Your task to perform on an android device: Add macbook pro to the cart on amazon, then select checkout. Image 0: 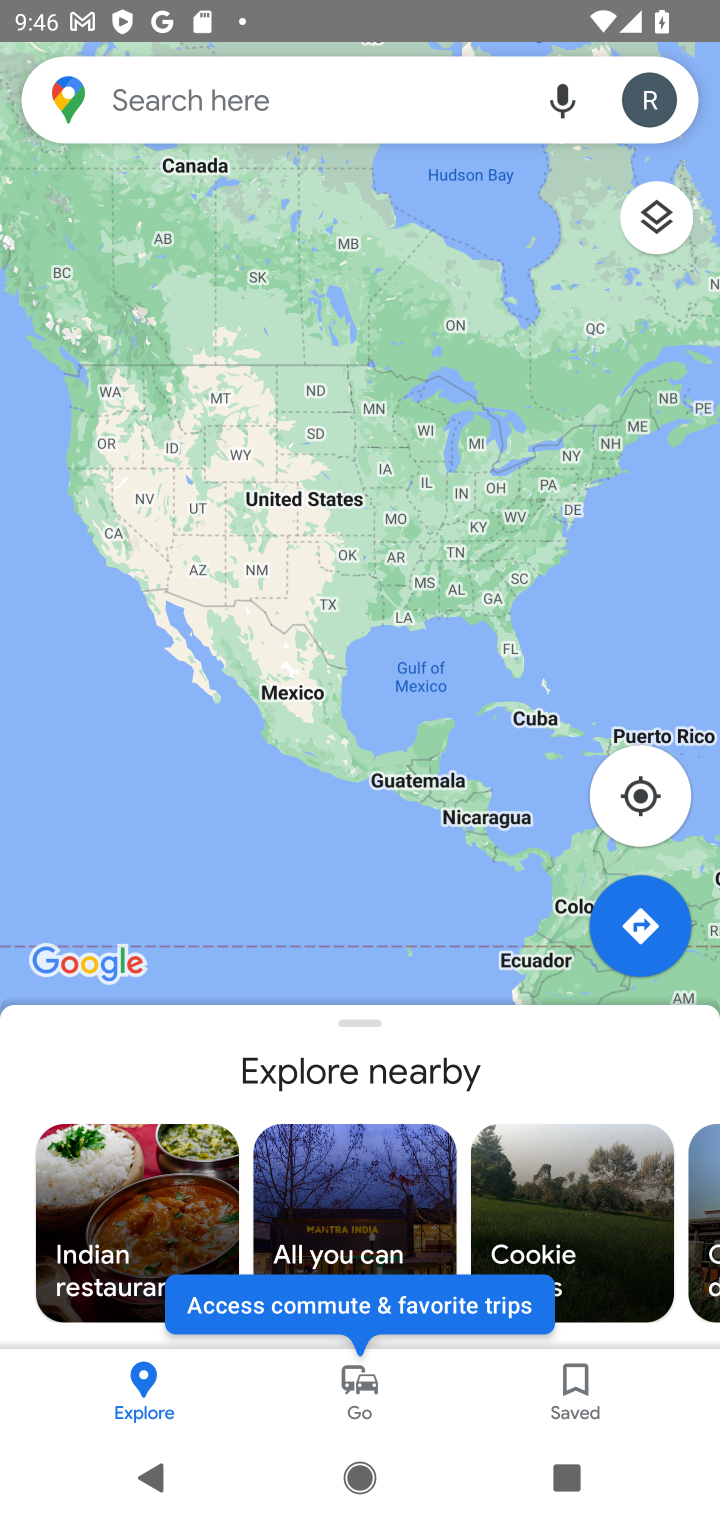
Step 0: press home button
Your task to perform on an android device: Add macbook pro to the cart on amazon, then select checkout. Image 1: 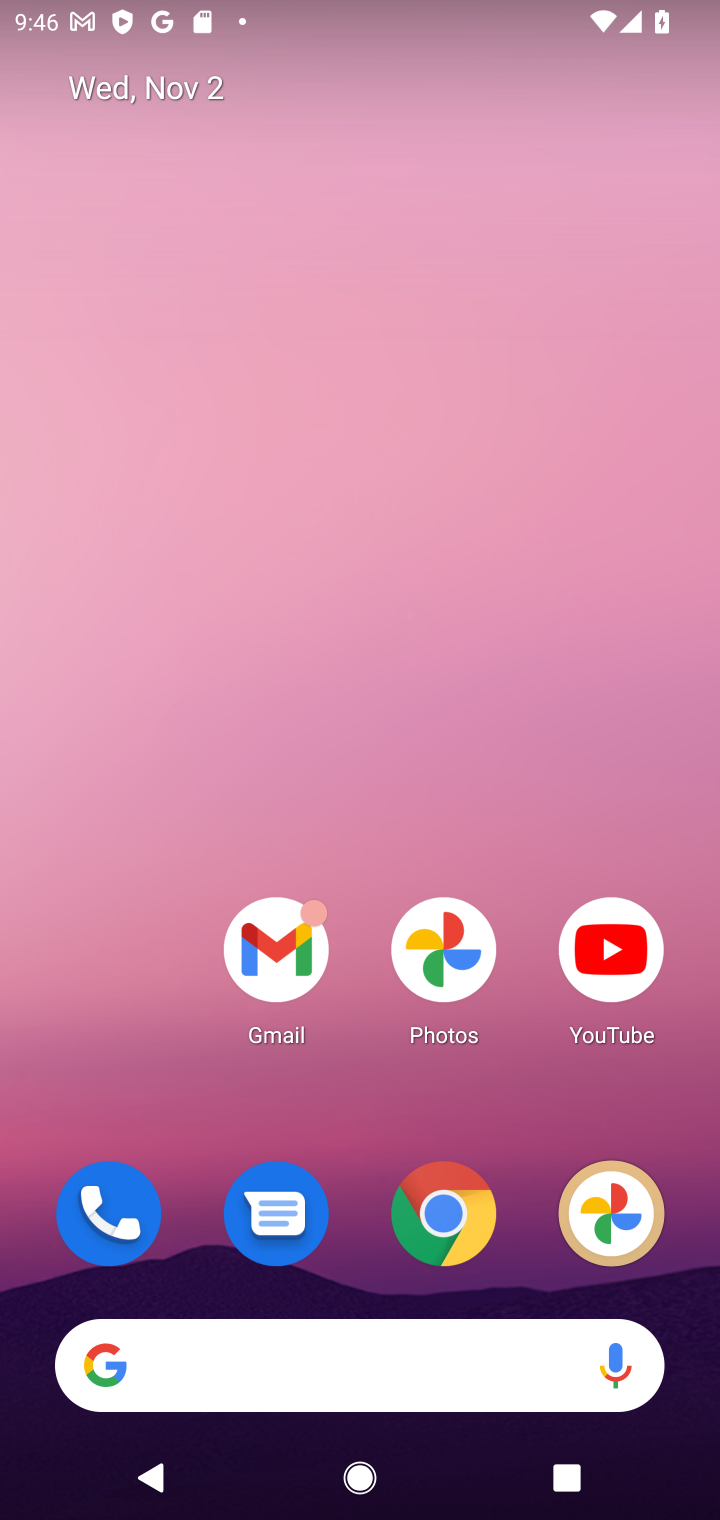
Step 1: click (438, 1212)
Your task to perform on an android device: Add macbook pro to the cart on amazon, then select checkout. Image 2: 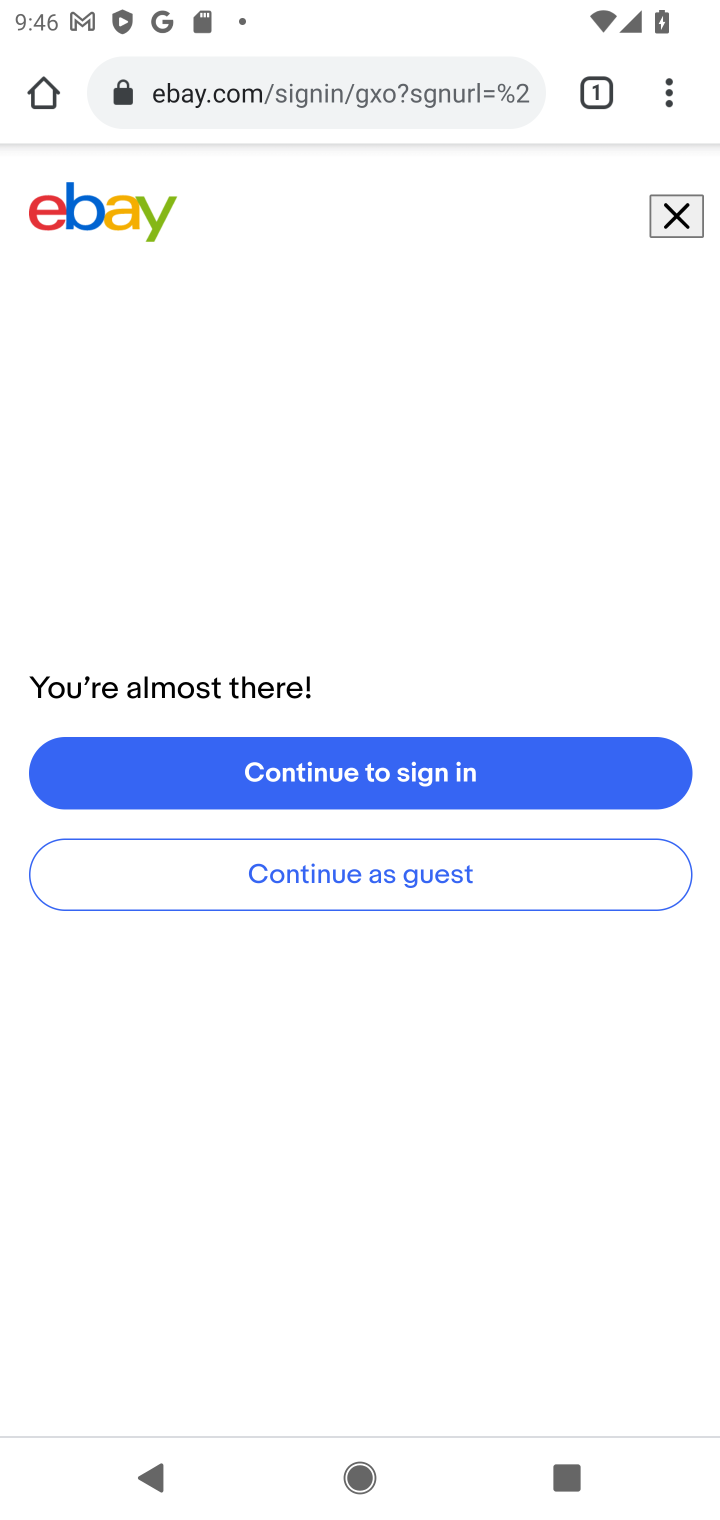
Step 2: click (286, 99)
Your task to perform on an android device: Add macbook pro to the cart on amazon, then select checkout. Image 3: 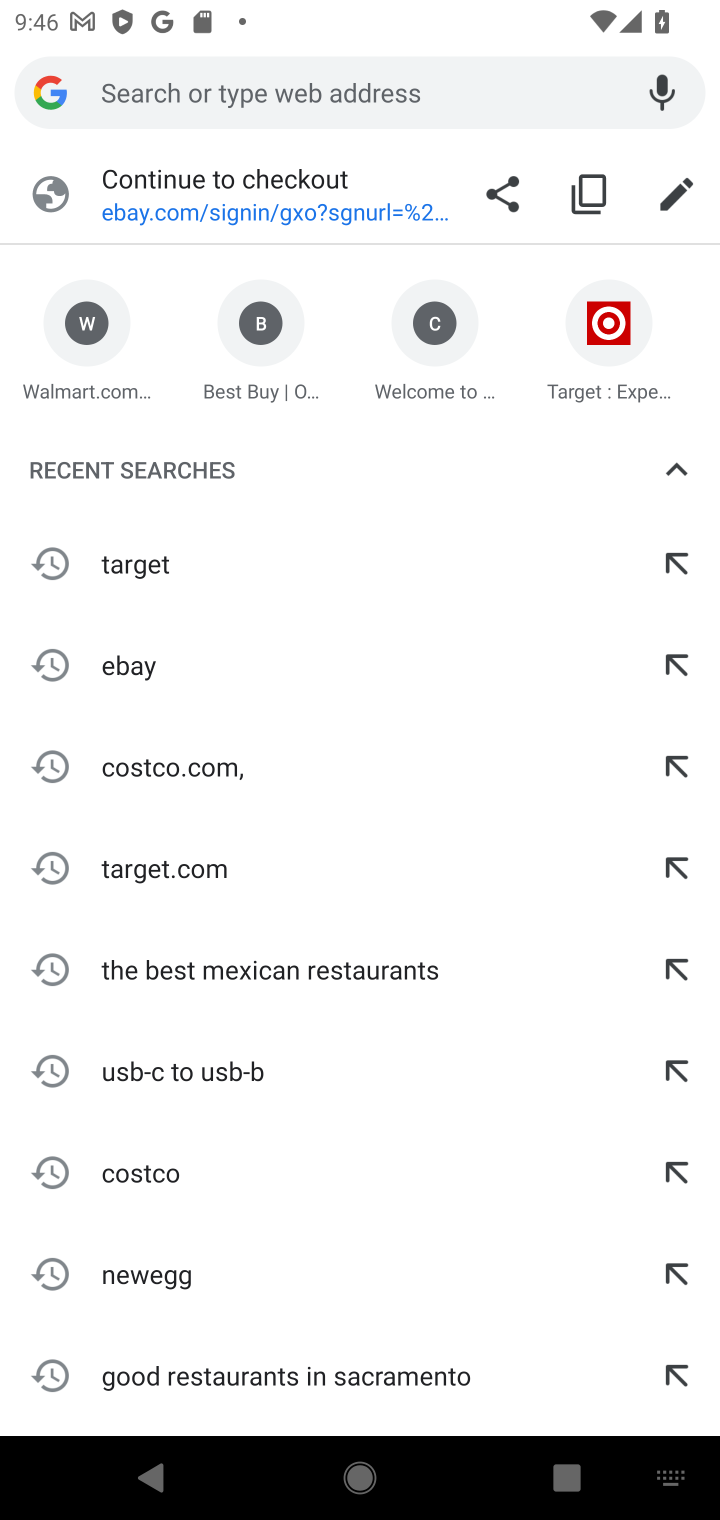
Step 3: type "amazon"
Your task to perform on an android device: Add macbook pro to the cart on amazon, then select checkout. Image 4: 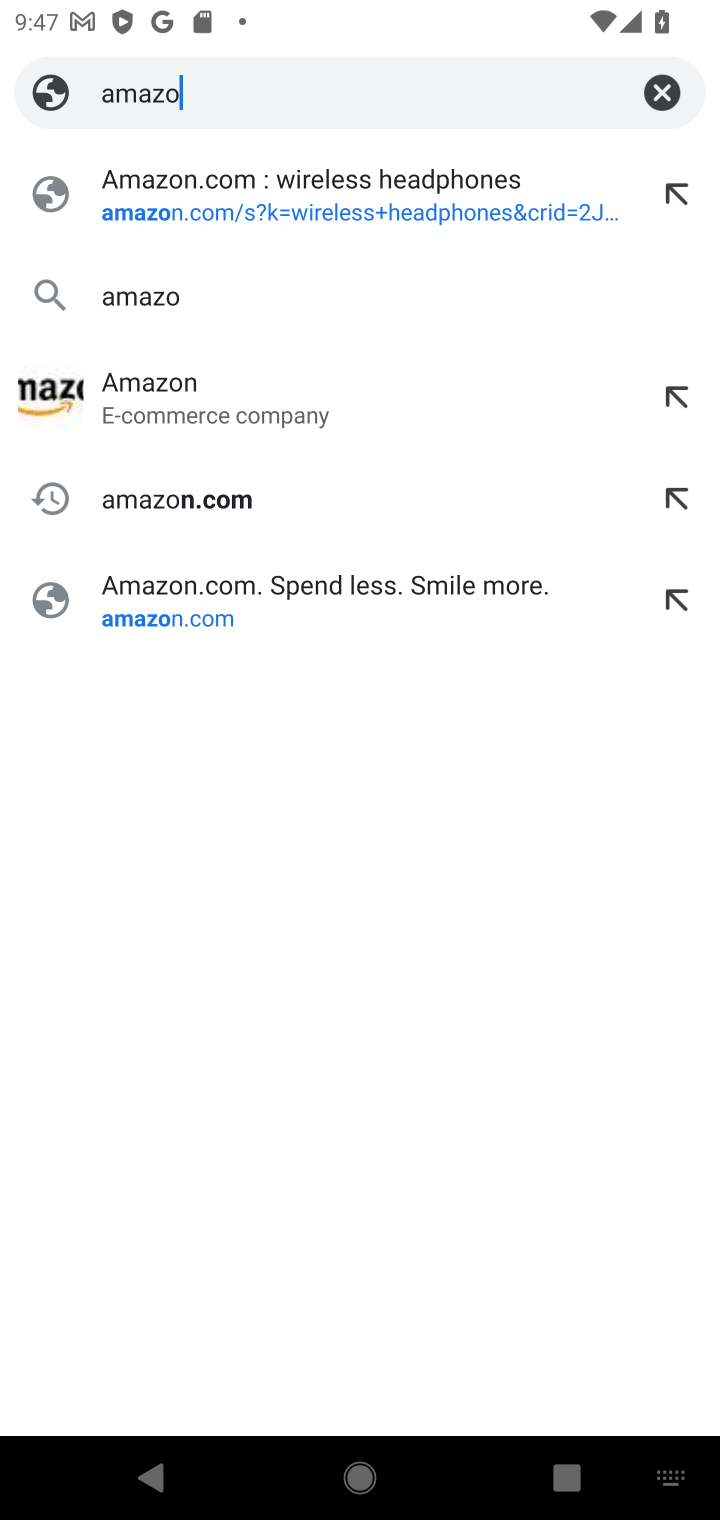
Step 4: type ""
Your task to perform on an android device: Add macbook pro to the cart on amazon, then select checkout. Image 5: 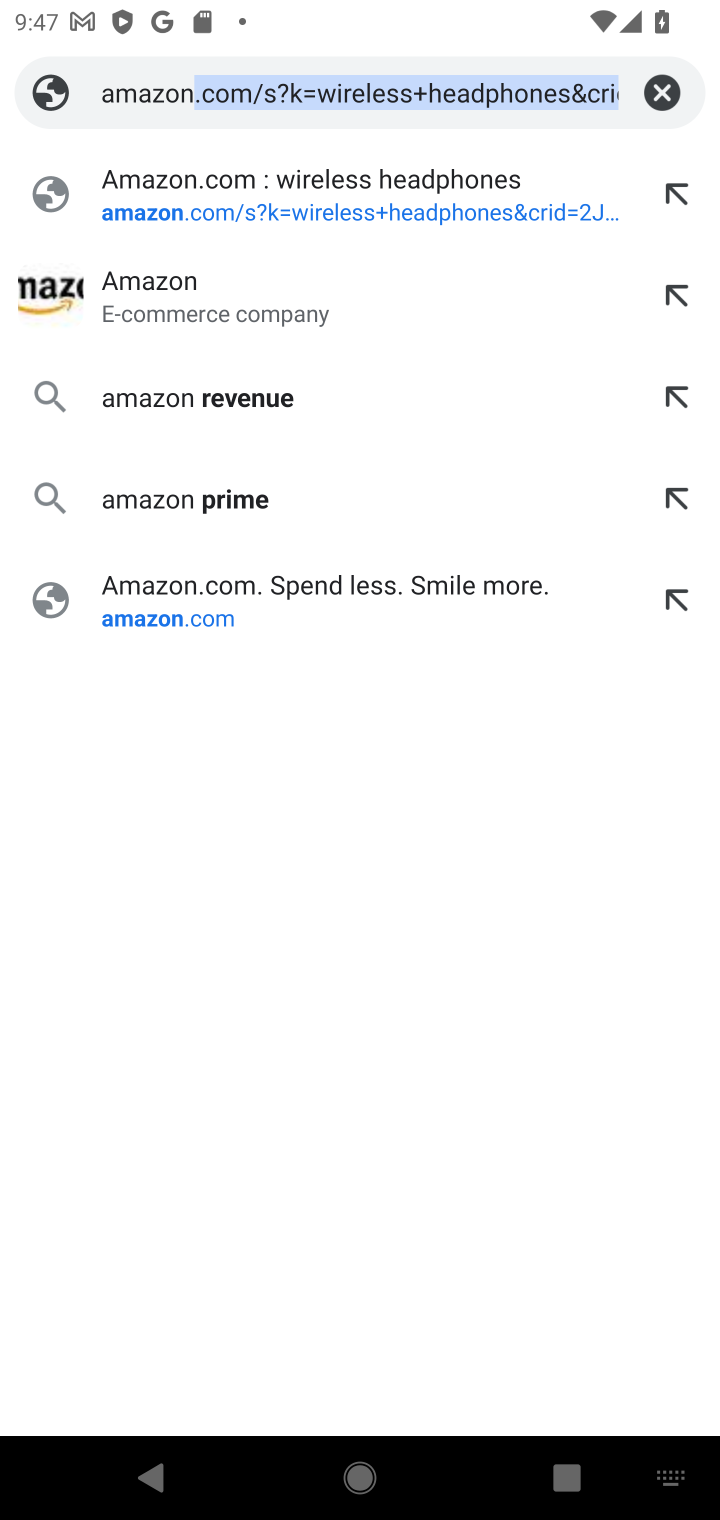
Step 5: click (146, 203)
Your task to perform on an android device: Add macbook pro to the cart on amazon, then select checkout. Image 6: 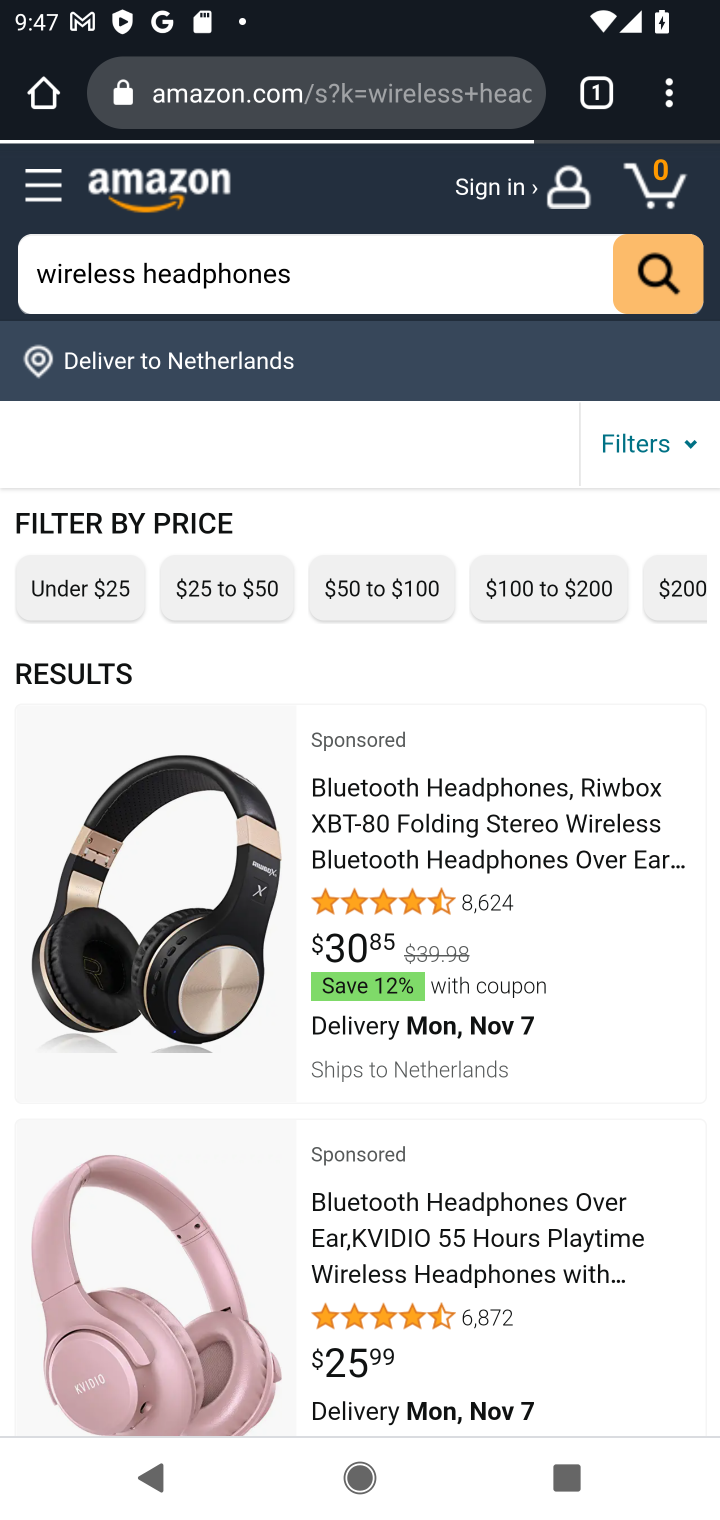
Step 6: click (408, 282)
Your task to perform on an android device: Add macbook pro to the cart on amazon, then select checkout. Image 7: 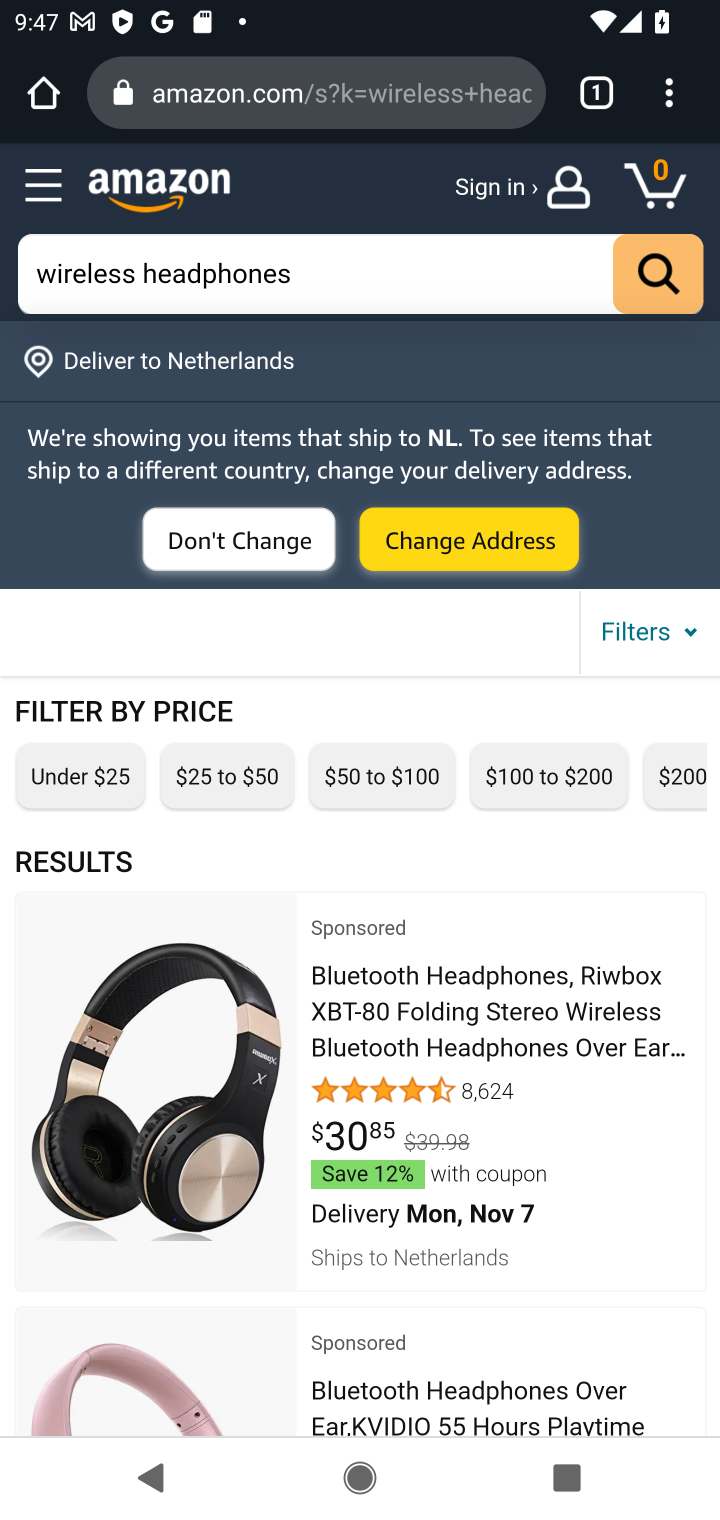
Step 7: click (268, 283)
Your task to perform on an android device: Add macbook pro to the cart on amazon, then select checkout. Image 8: 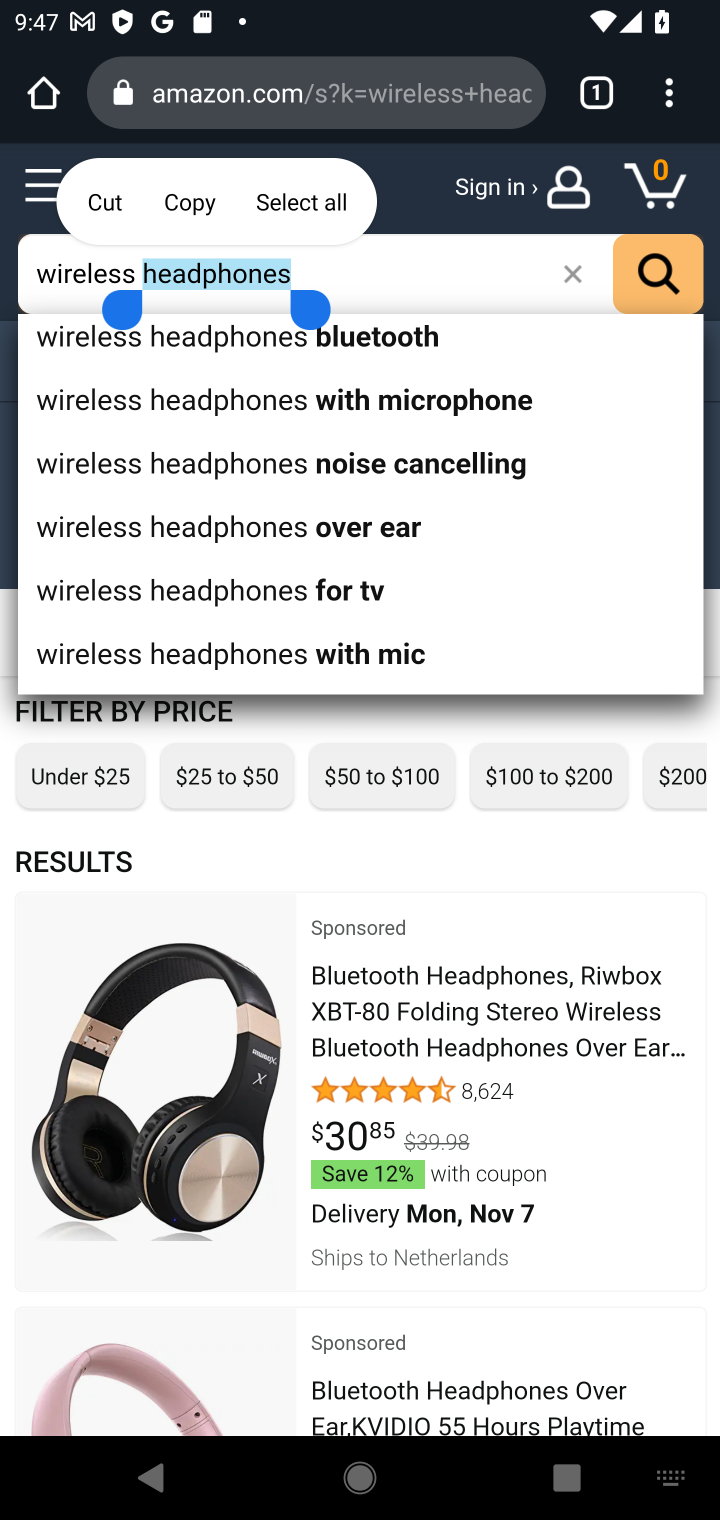
Step 8: click (577, 277)
Your task to perform on an android device: Add macbook pro to the cart on amazon, then select checkout. Image 9: 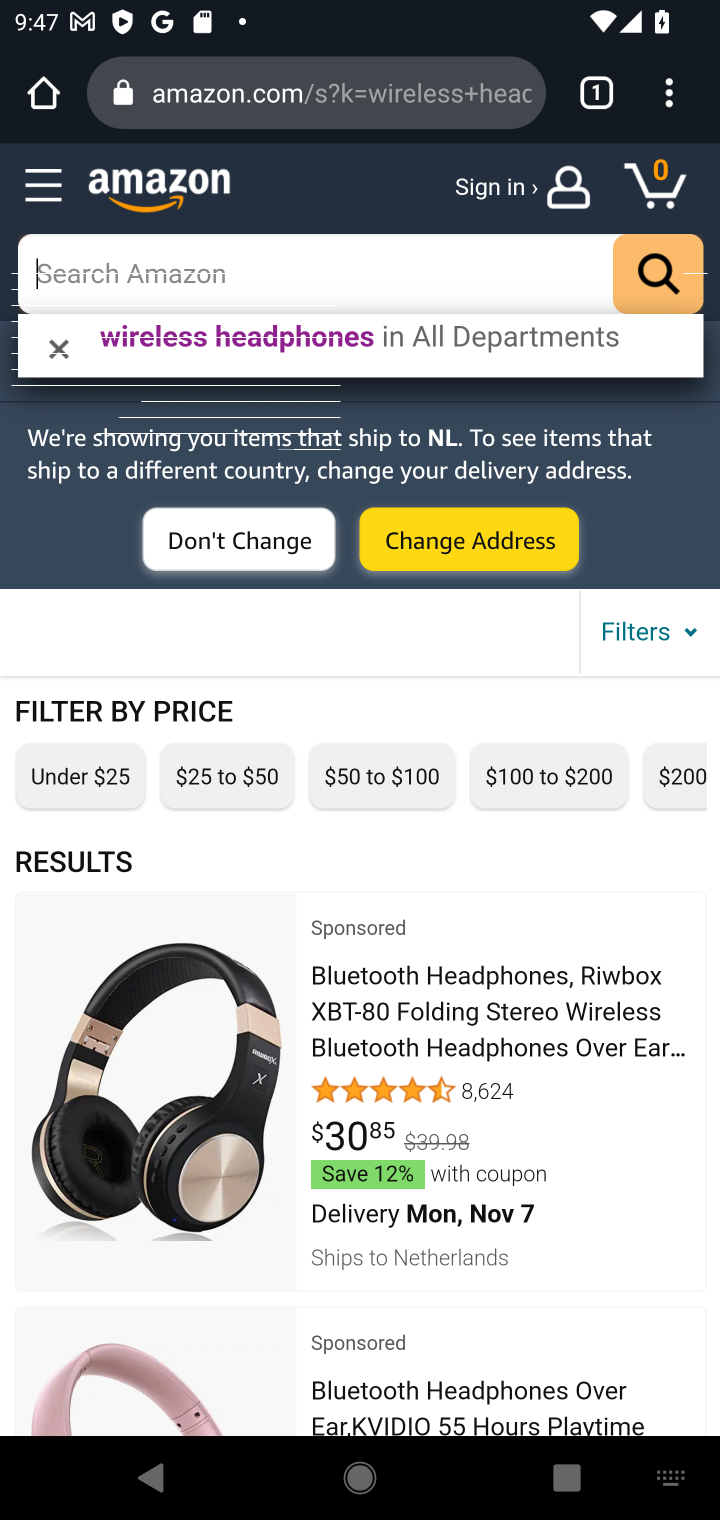
Step 9: type "macbook pro"
Your task to perform on an android device: Add macbook pro to the cart on amazon, then select checkout. Image 10: 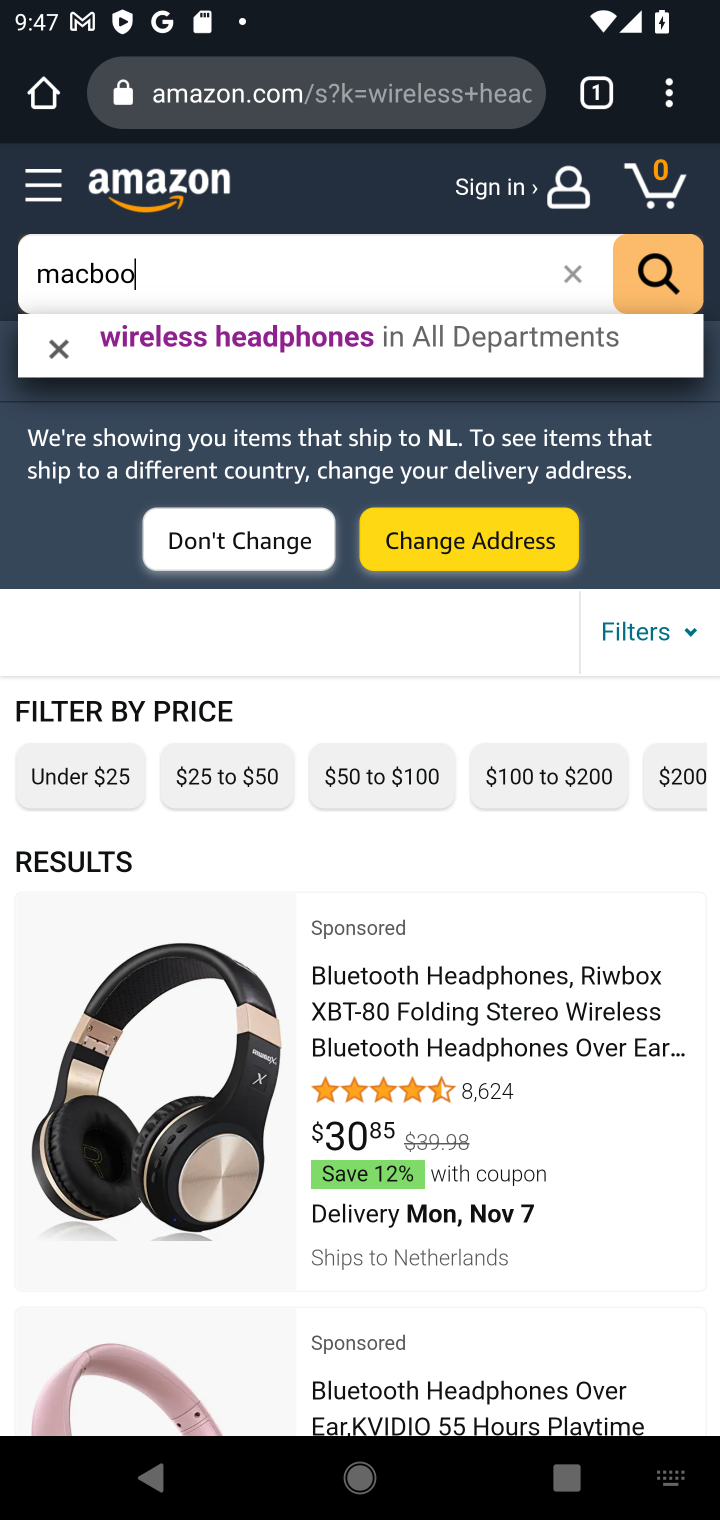
Step 10: type ""
Your task to perform on an android device: Add macbook pro to the cart on amazon, then select checkout. Image 11: 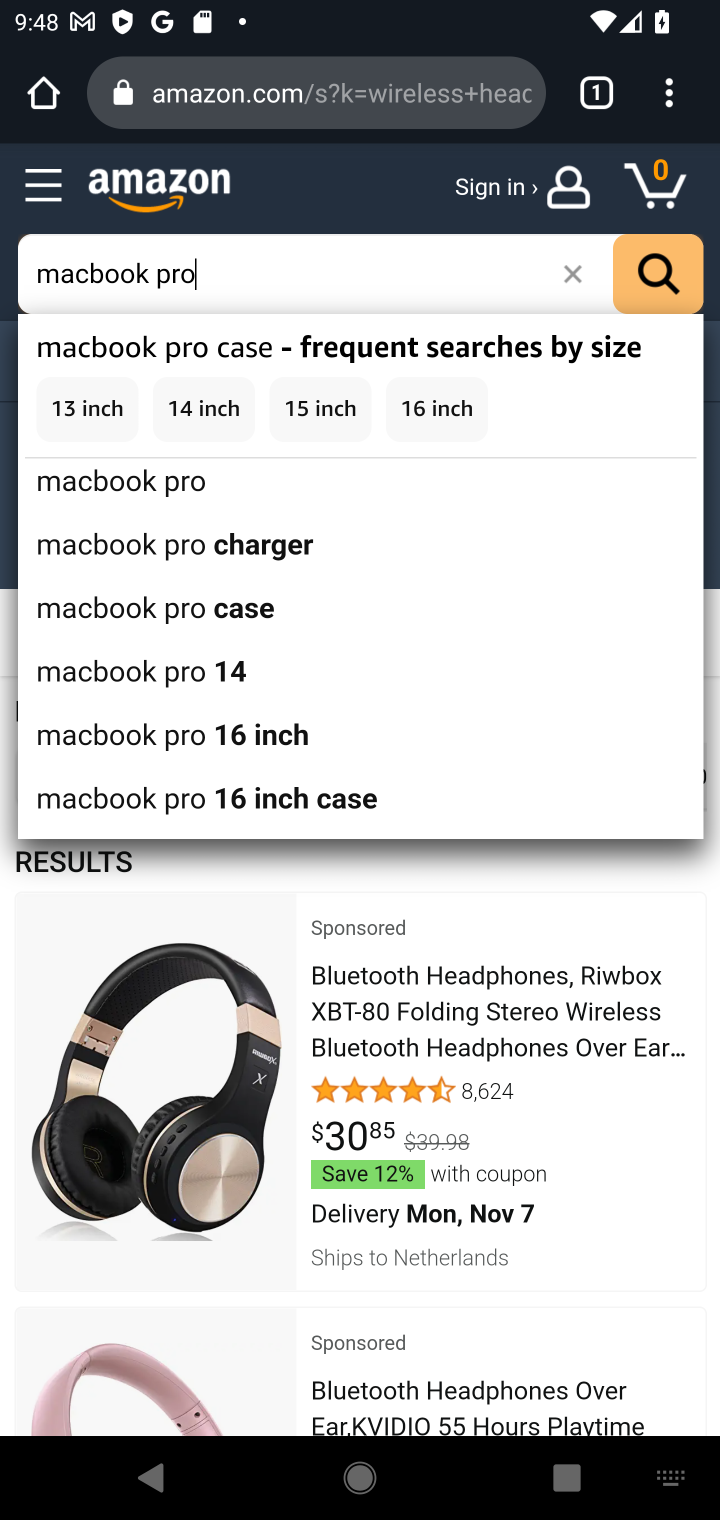
Step 11: click (212, 496)
Your task to perform on an android device: Add macbook pro to the cart on amazon, then select checkout. Image 12: 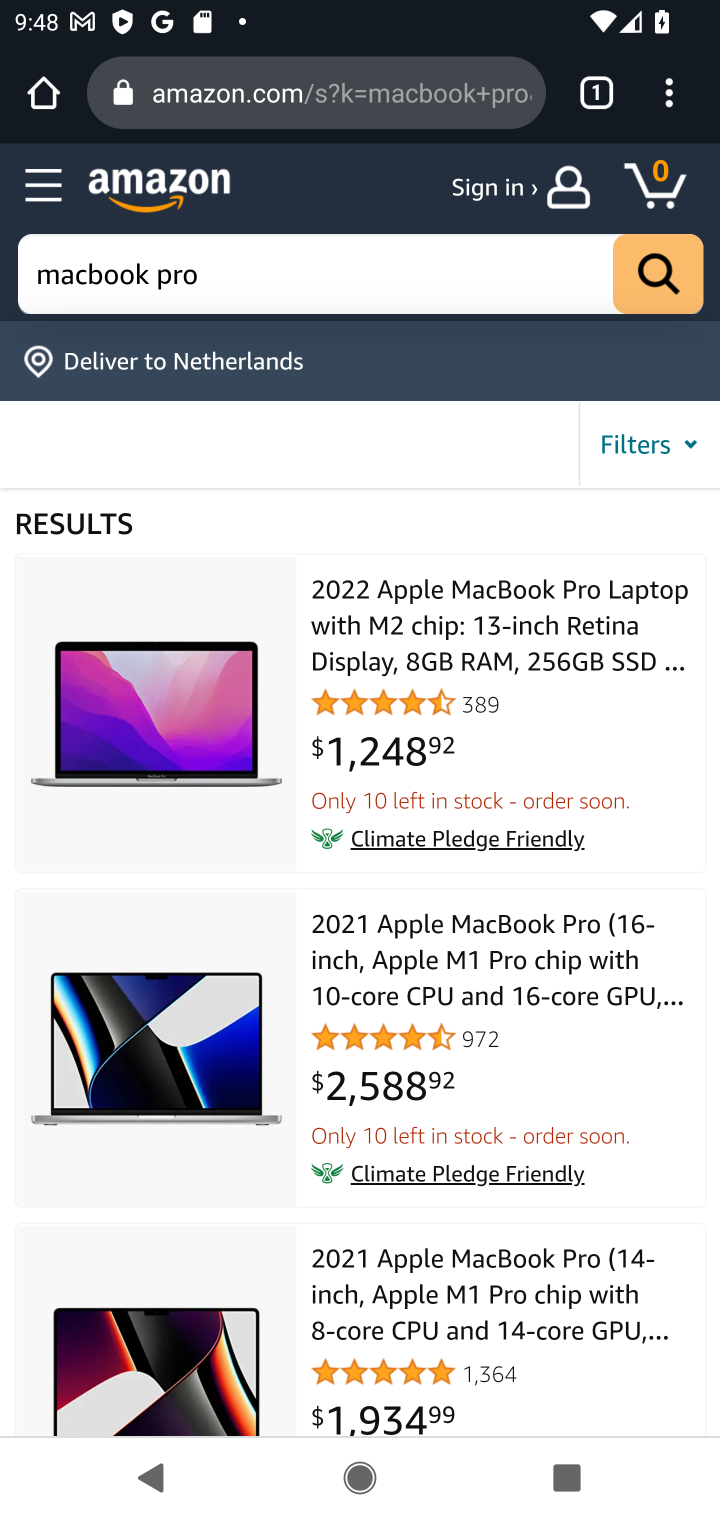
Step 12: click (438, 644)
Your task to perform on an android device: Add macbook pro to the cart on amazon, then select checkout. Image 13: 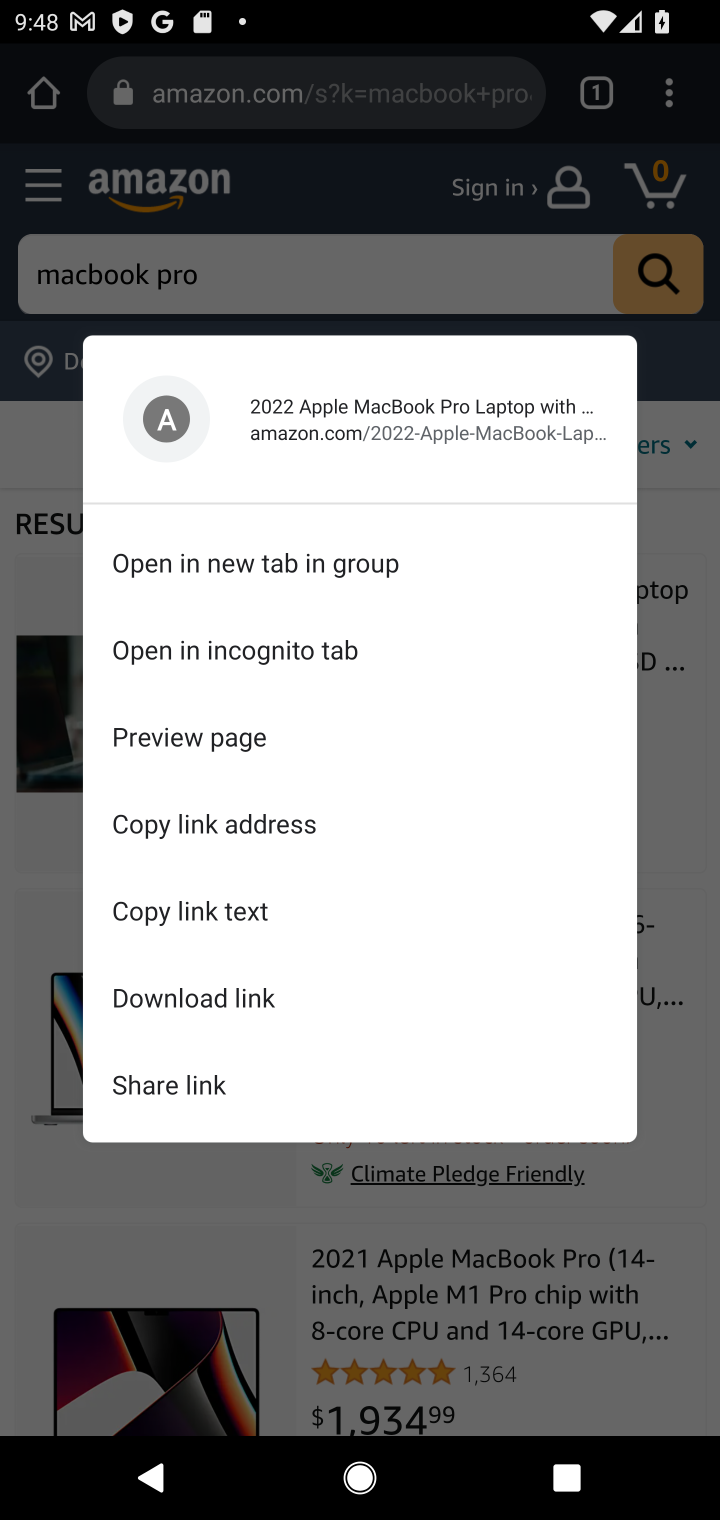
Step 13: click (661, 748)
Your task to perform on an android device: Add macbook pro to the cart on amazon, then select checkout. Image 14: 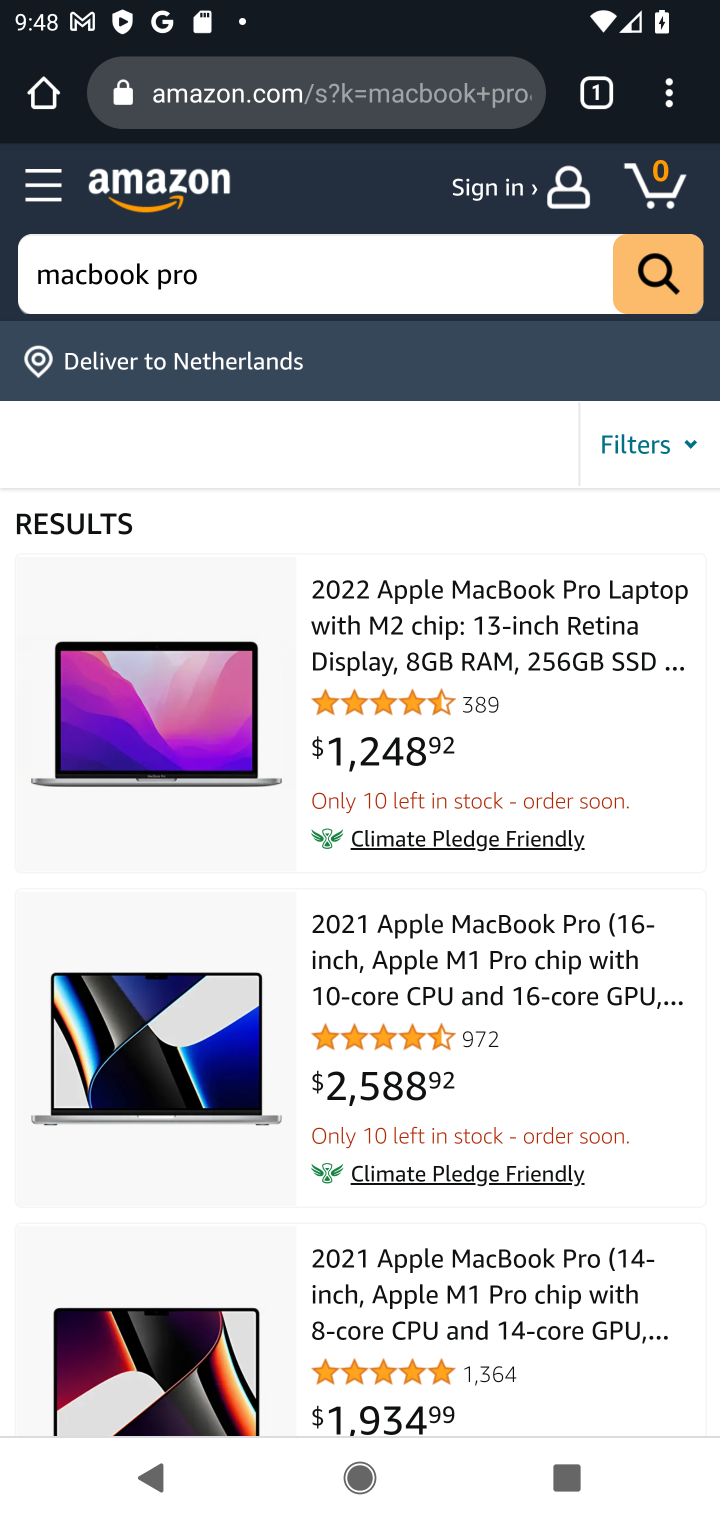
Step 14: click (571, 1018)
Your task to perform on an android device: Add macbook pro to the cart on amazon, then select checkout. Image 15: 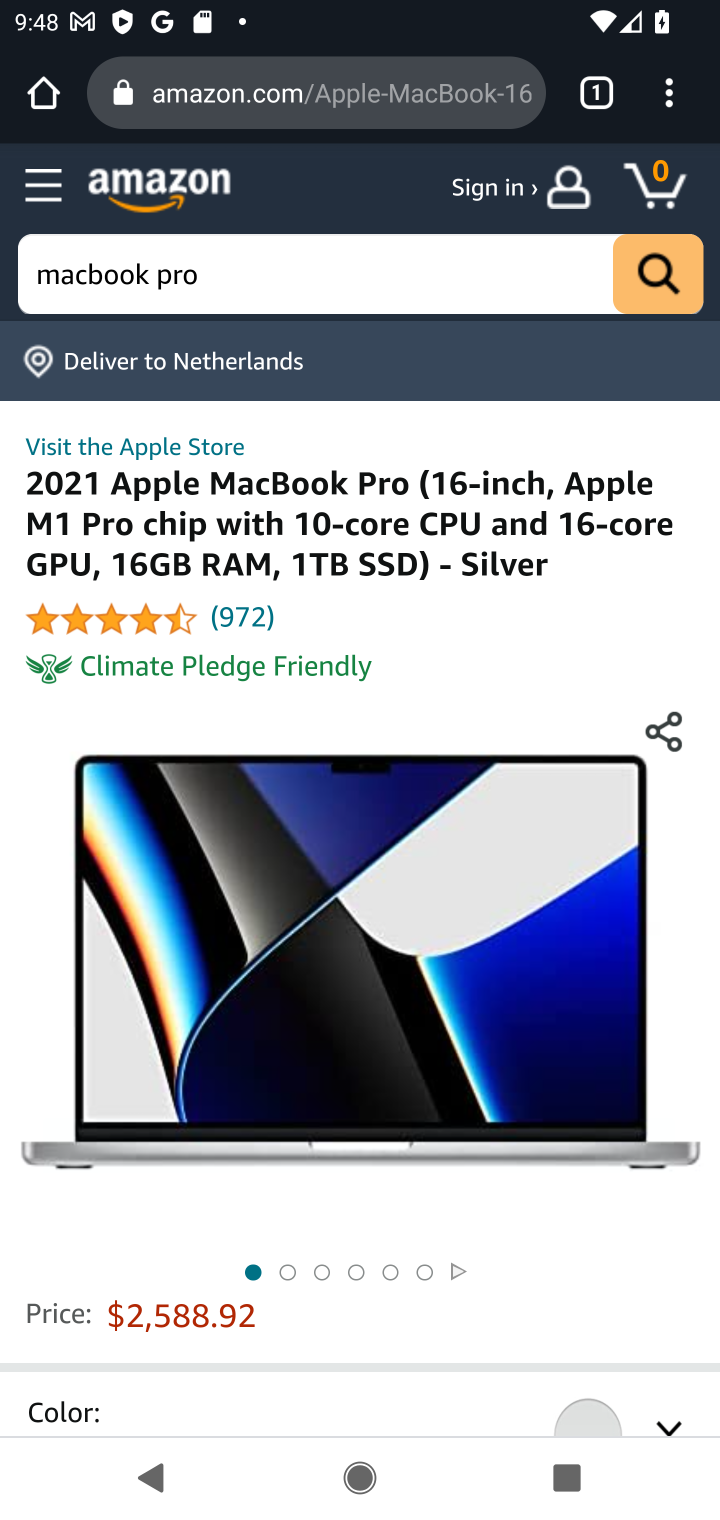
Step 15: drag from (578, 918) to (544, 692)
Your task to perform on an android device: Add macbook pro to the cart on amazon, then select checkout. Image 16: 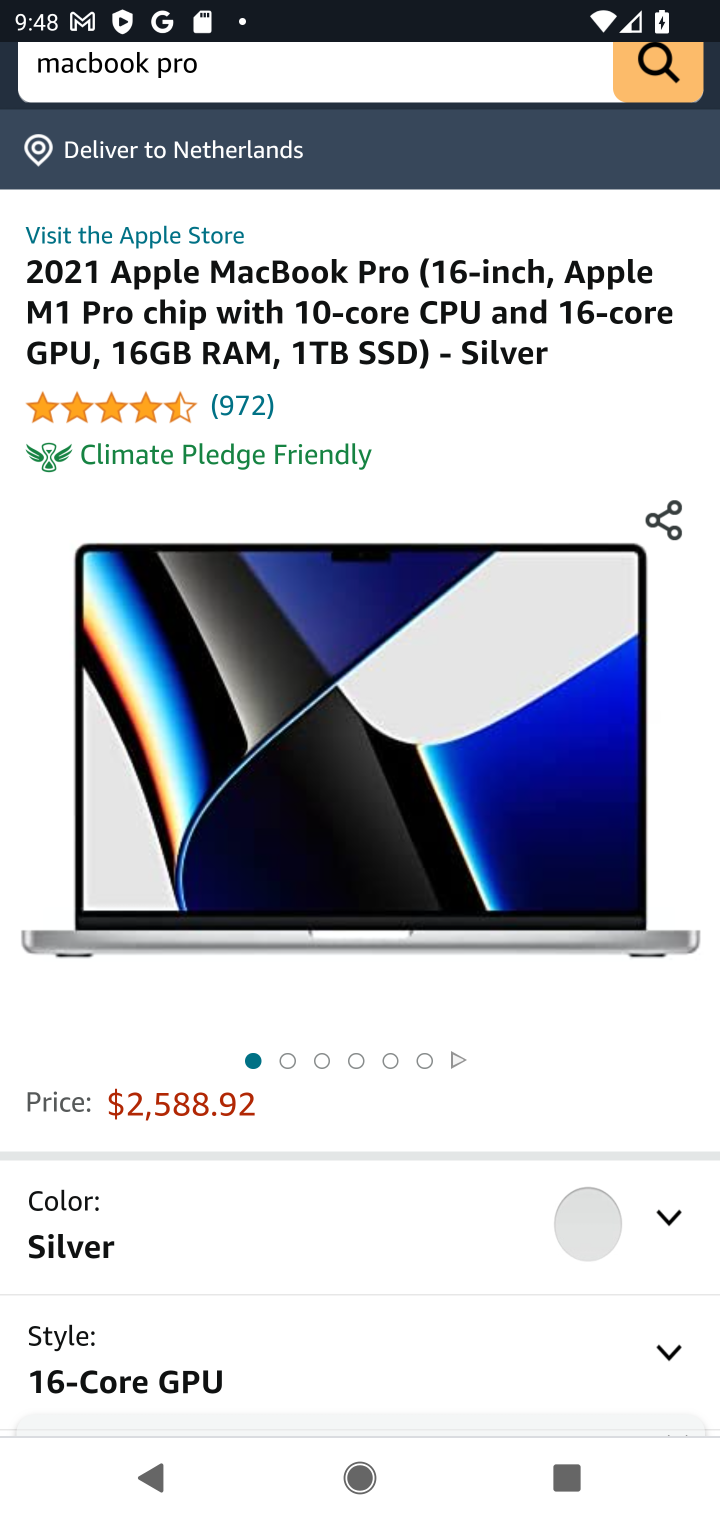
Step 16: drag from (383, 983) to (391, 489)
Your task to perform on an android device: Add macbook pro to the cart on amazon, then select checkout. Image 17: 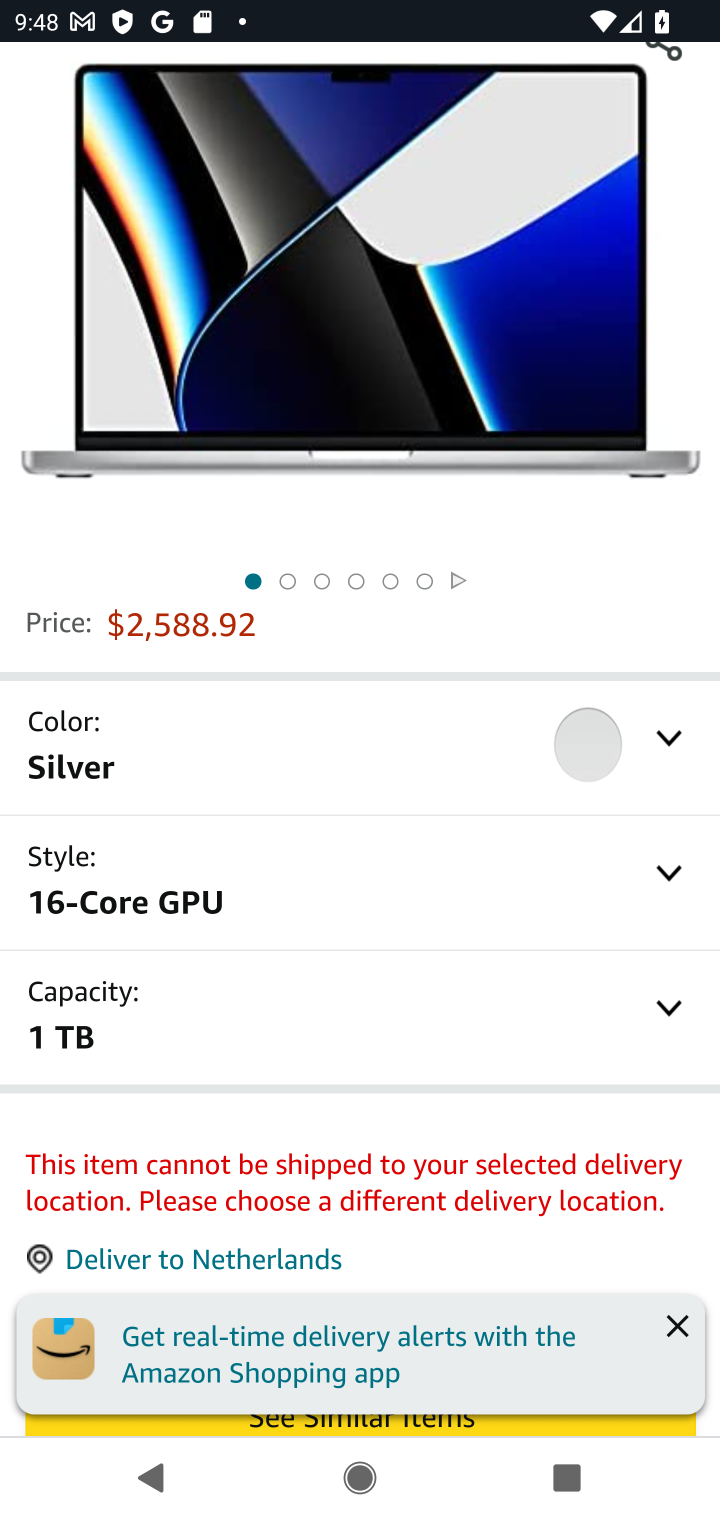
Step 17: click (681, 1338)
Your task to perform on an android device: Add macbook pro to the cart on amazon, then select checkout. Image 18: 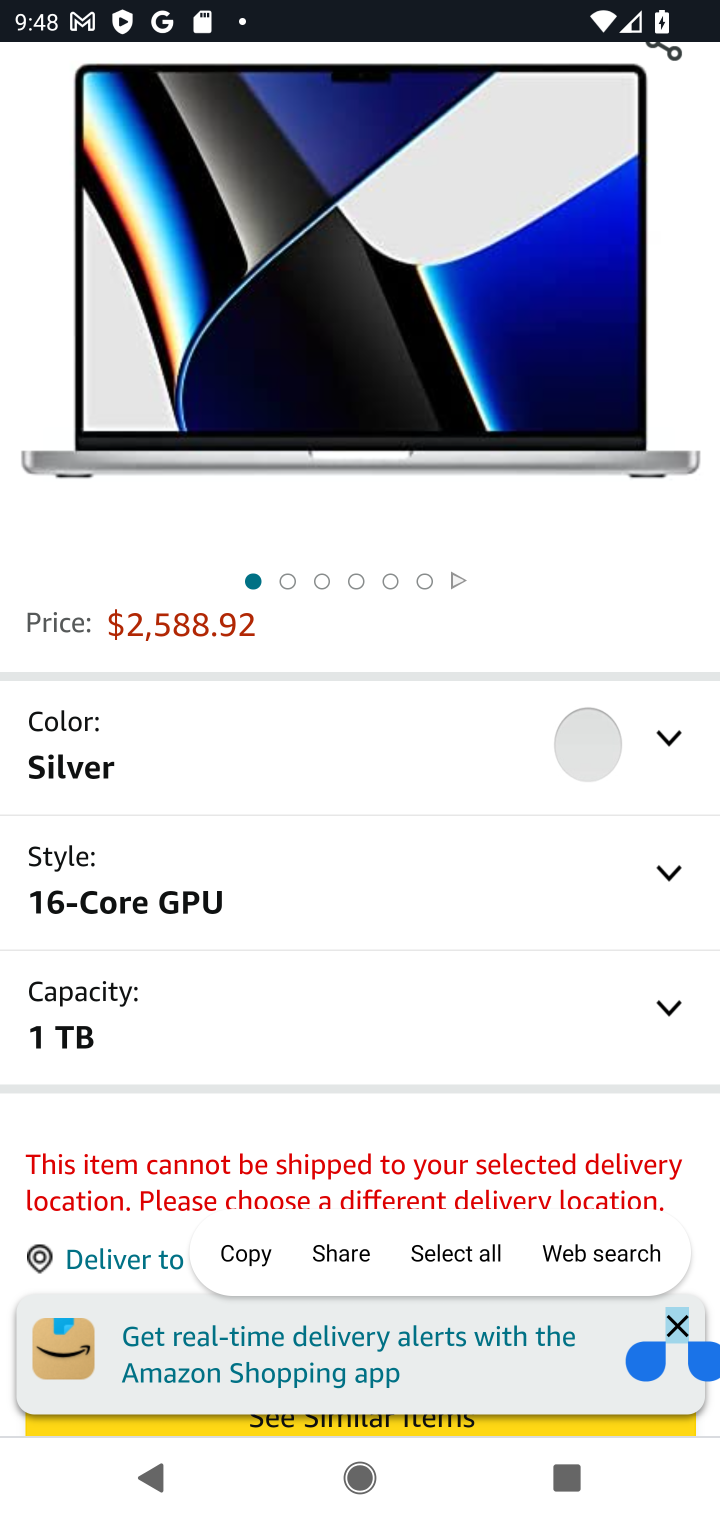
Step 18: press back button
Your task to perform on an android device: Add macbook pro to the cart on amazon, then select checkout. Image 19: 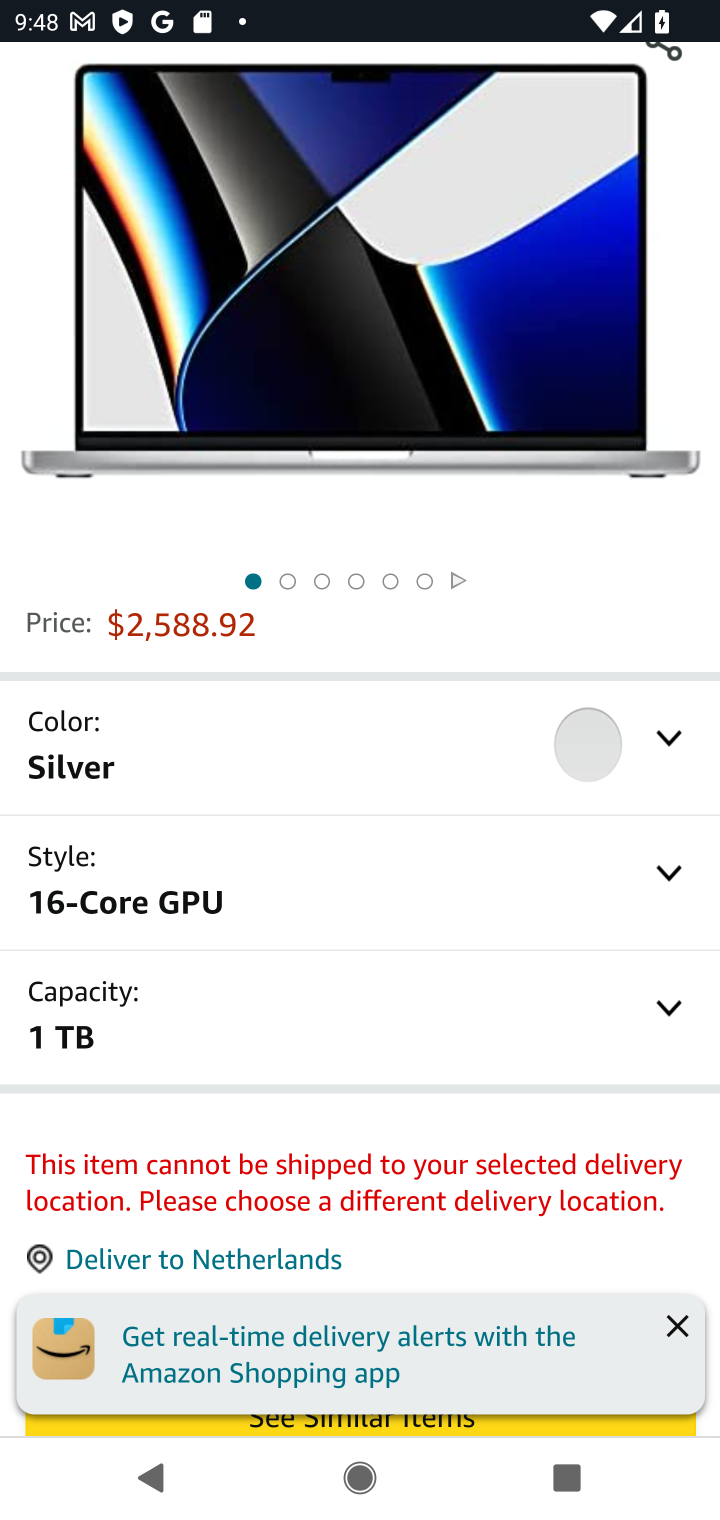
Step 19: press back button
Your task to perform on an android device: Add macbook pro to the cart on amazon, then select checkout. Image 20: 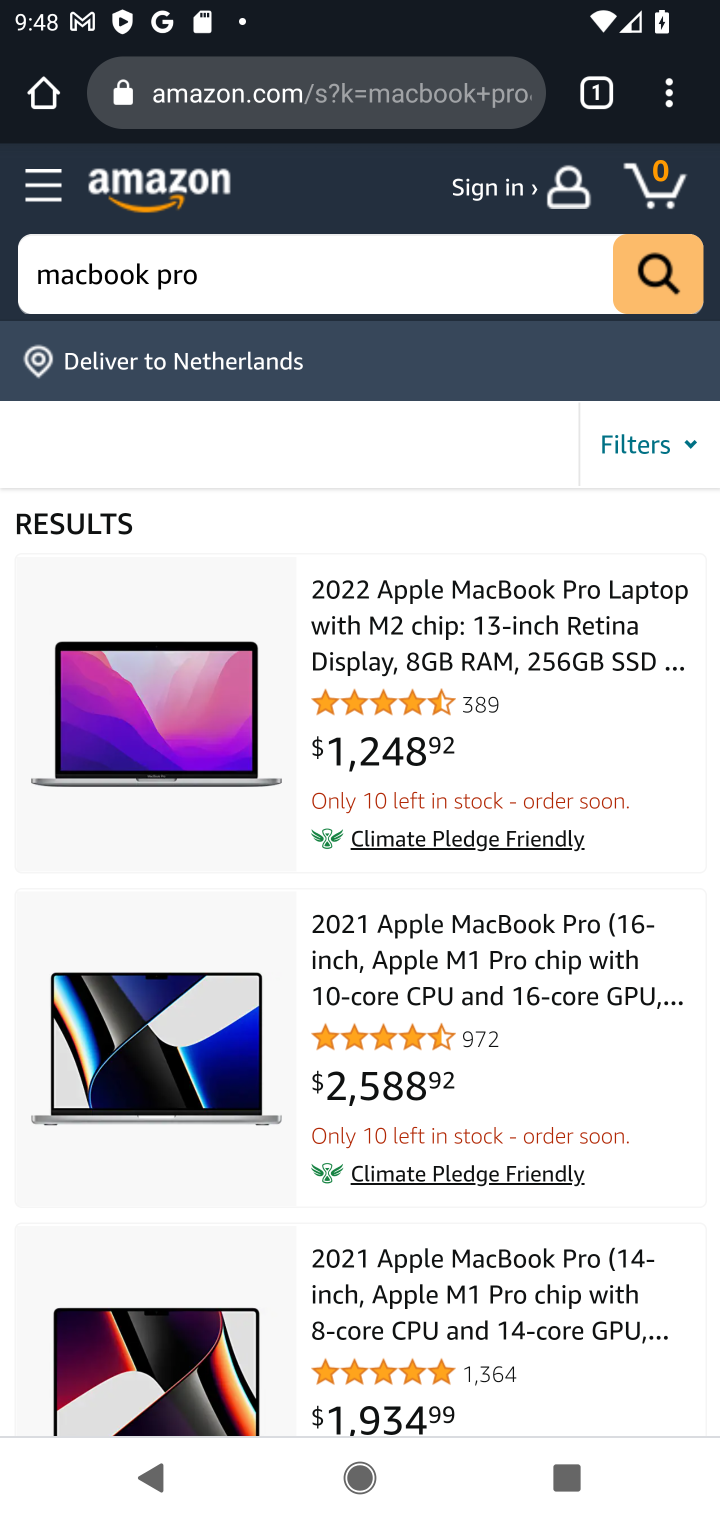
Step 20: click (506, 642)
Your task to perform on an android device: Add macbook pro to the cart on amazon, then select checkout. Image 21: 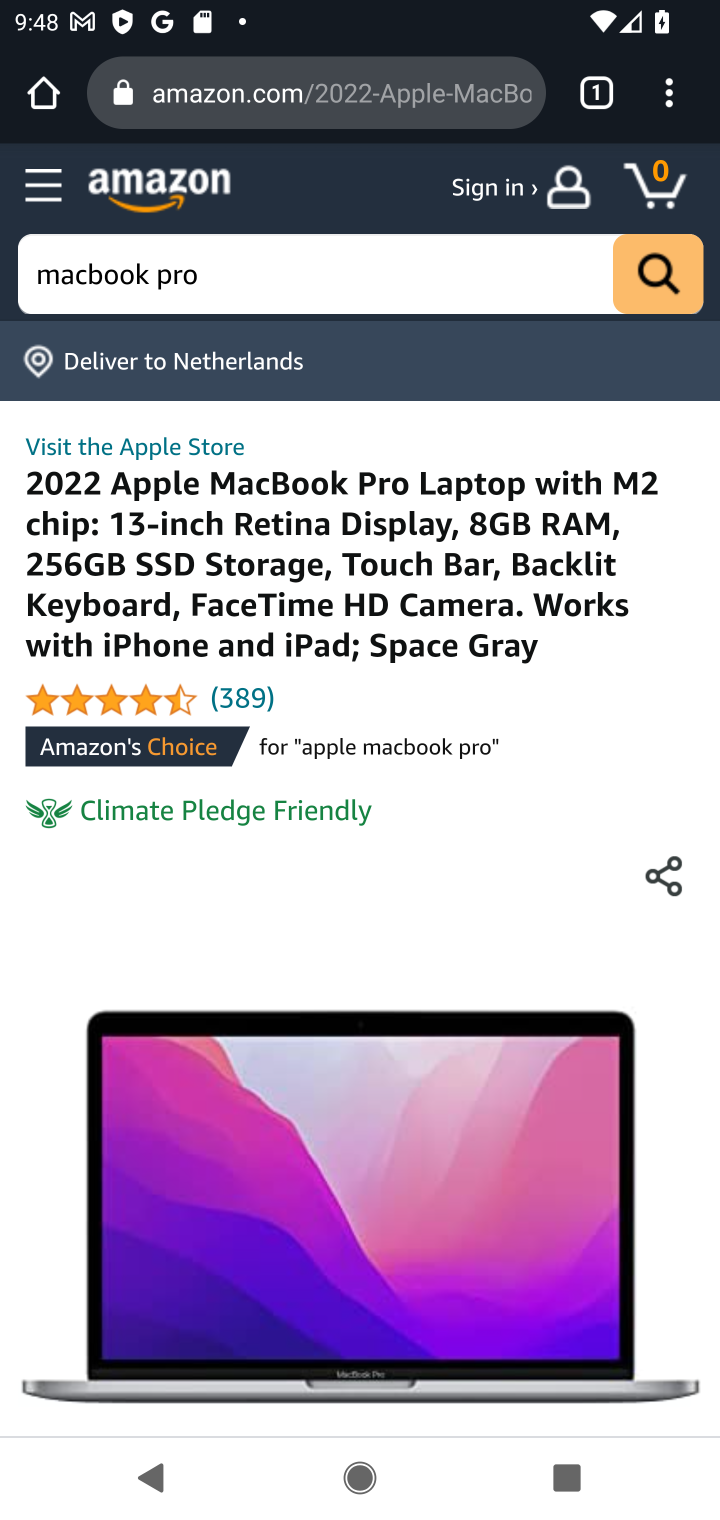
Step 21: drag from (453, 872) to (453, 483)
Your task to perform on an android device: Add macbook pro to the cart on amazon, then select checkout. Image 22: 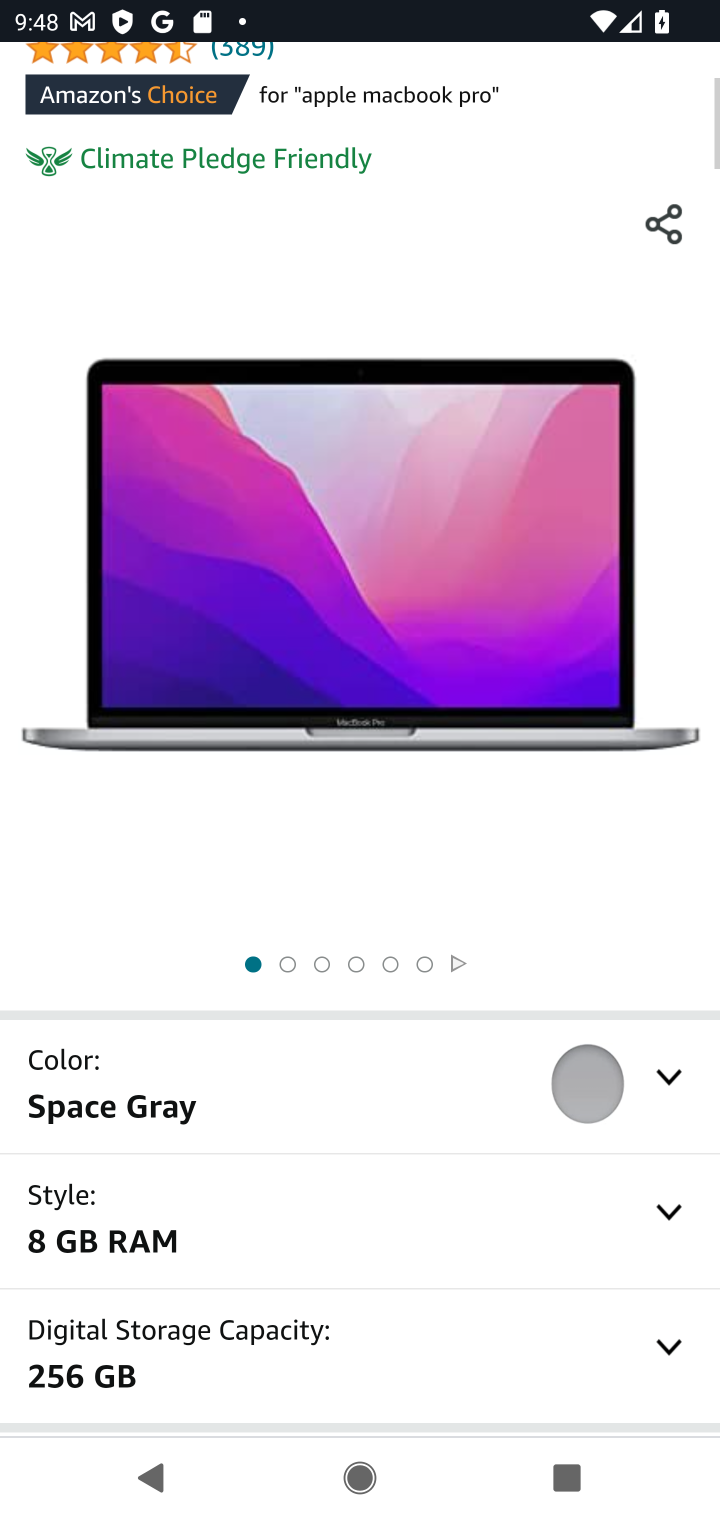
Step 22: drag from (426, 782) to (391, 555)
Your task to perform on an android device: Add macbook pro to the cart on amazon, then select checkout. Image 23: 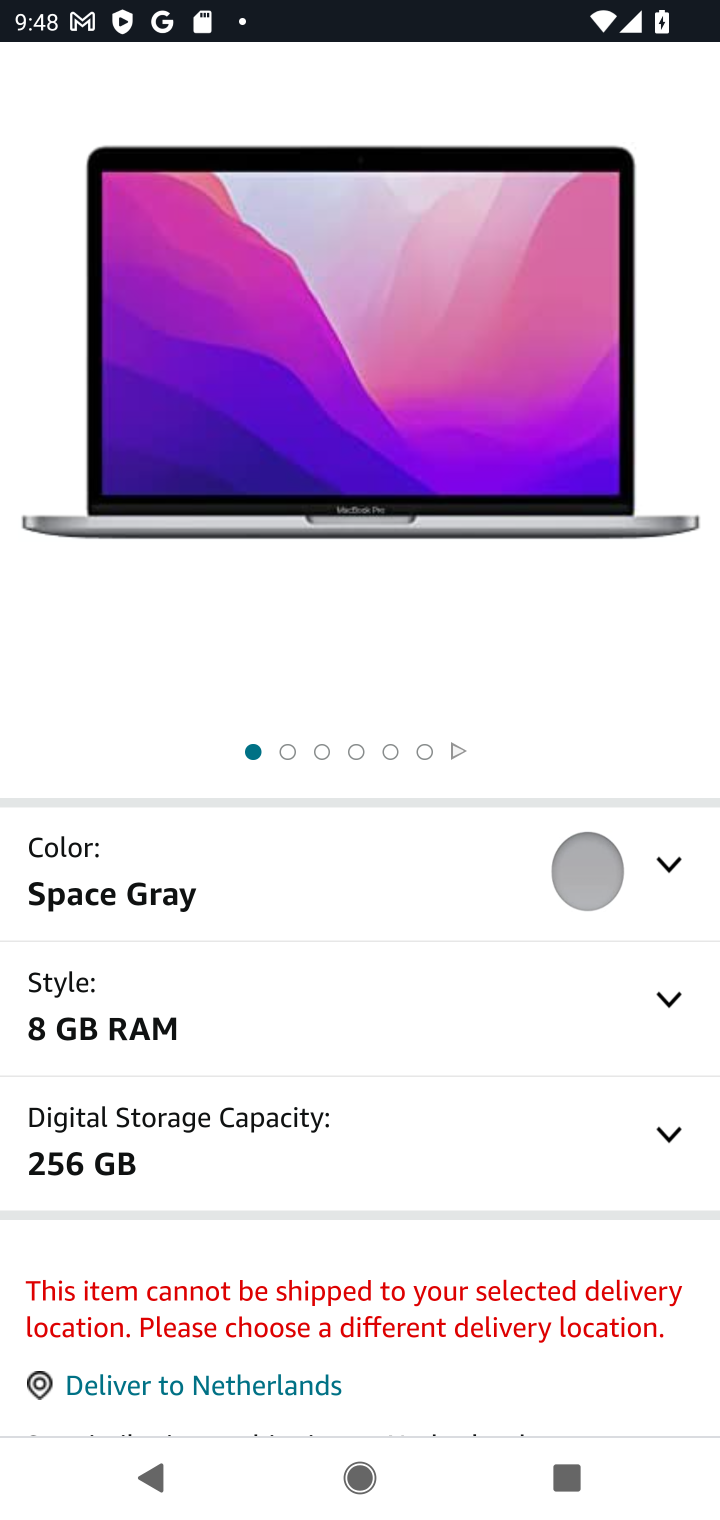
Step 23: click (507, 710)
Your task to perform on an android device: Add macbook pro to the cart on amazon, then select checkout. Image 24: 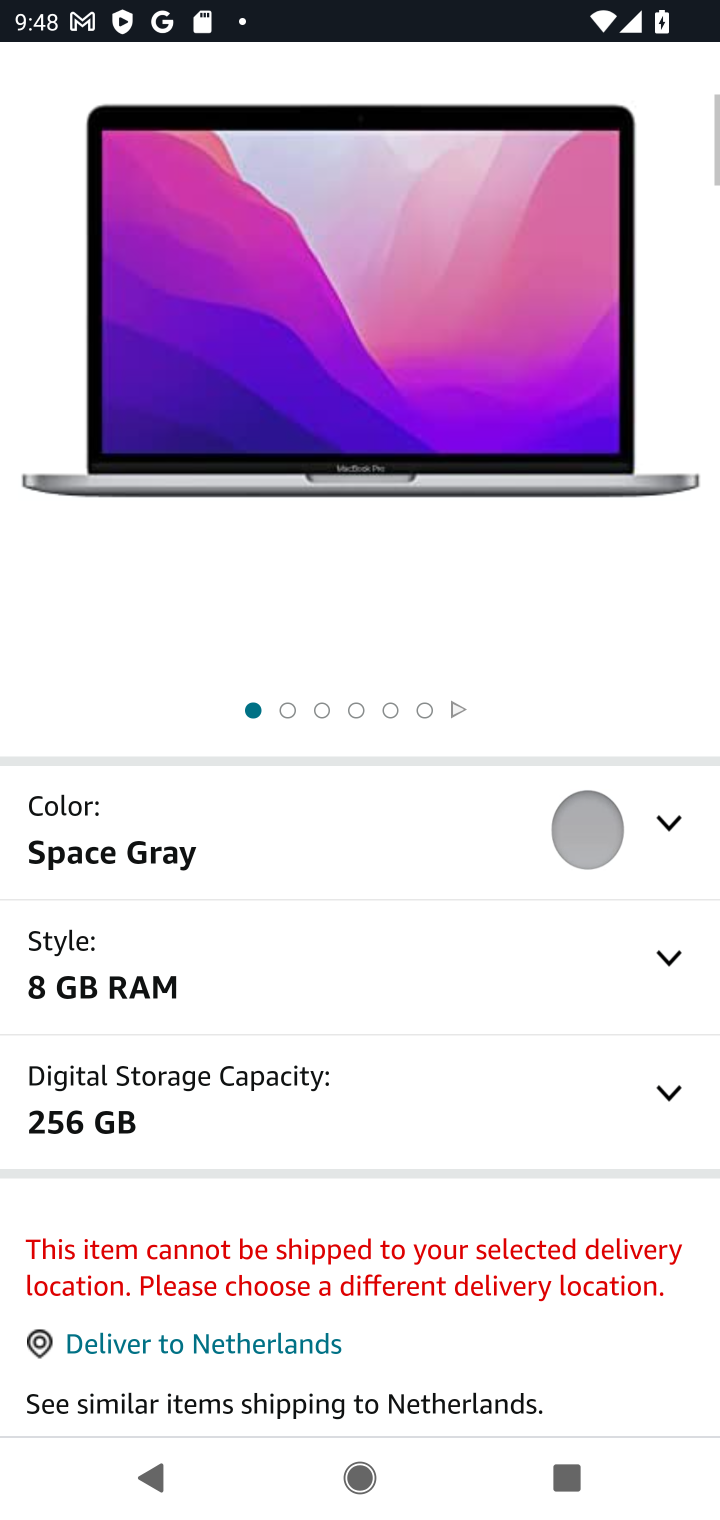
Step 24: press back button
Your task to perform on an android device: Add macbook pro to the cart on amazon, then select checkout. Image 25: 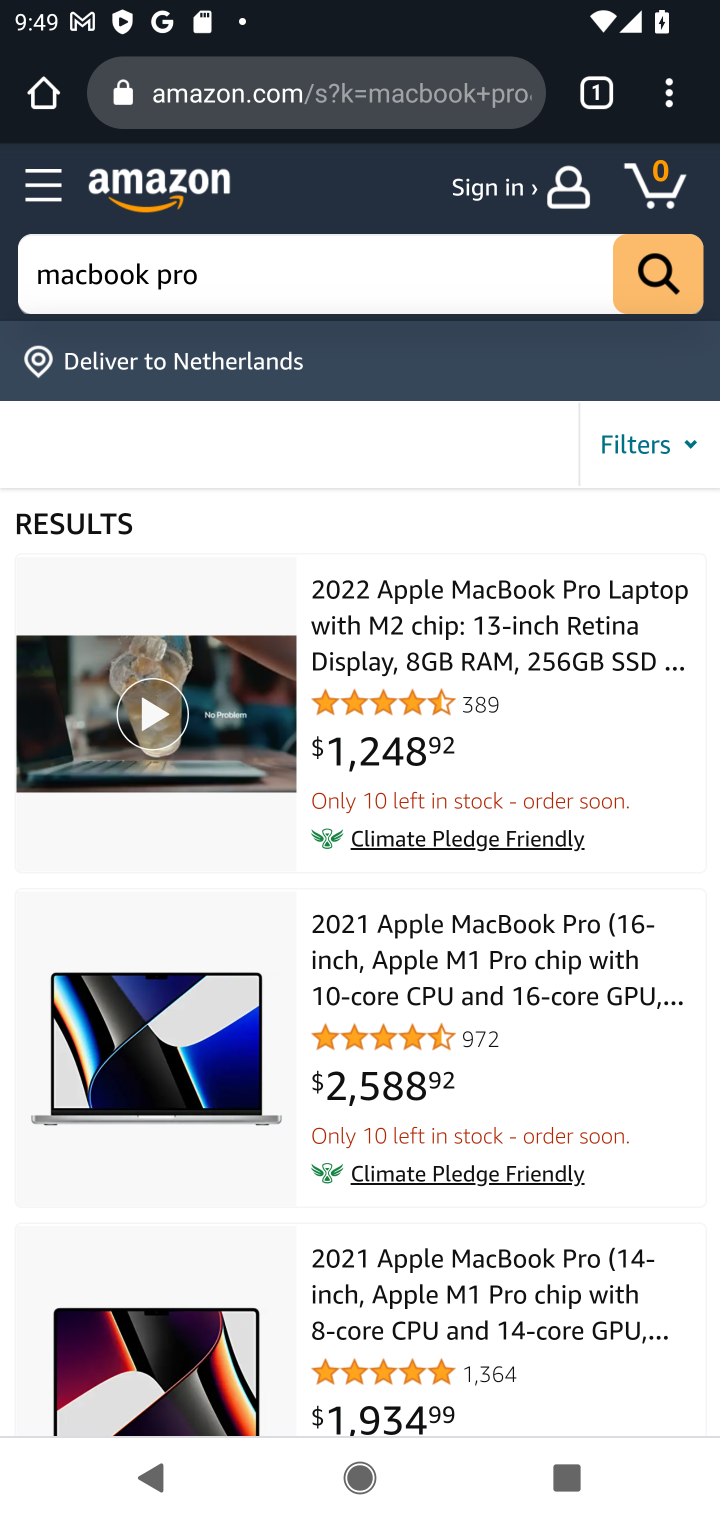
Step 25: click (444, 1290)
Your task to perform on an android device: Add macbook pro to the cart on amazon, then select checkout. Image 26: 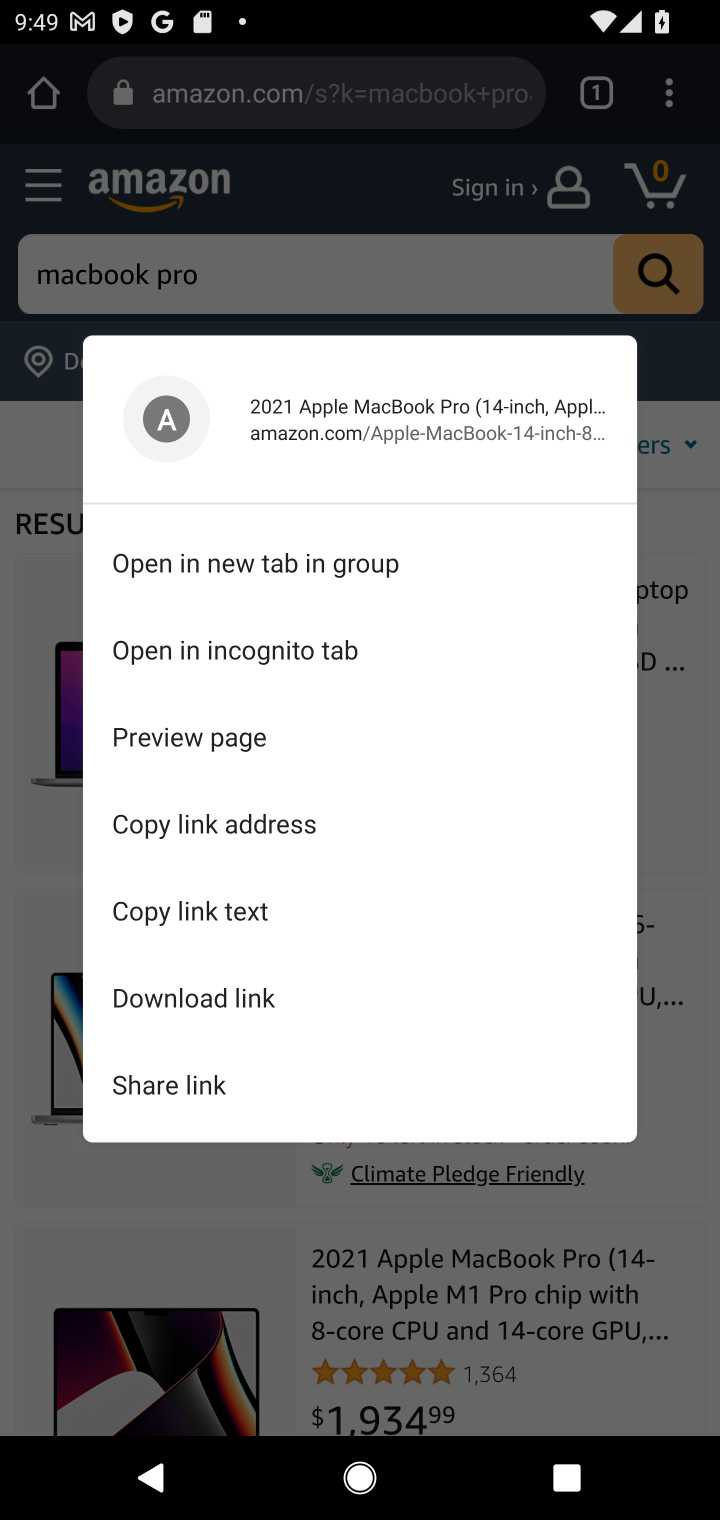
Step 26: click (457, 1325)
Your task to perform on an android device: Add macbook pro to the cart on amazon, then select checkout. Image 27: 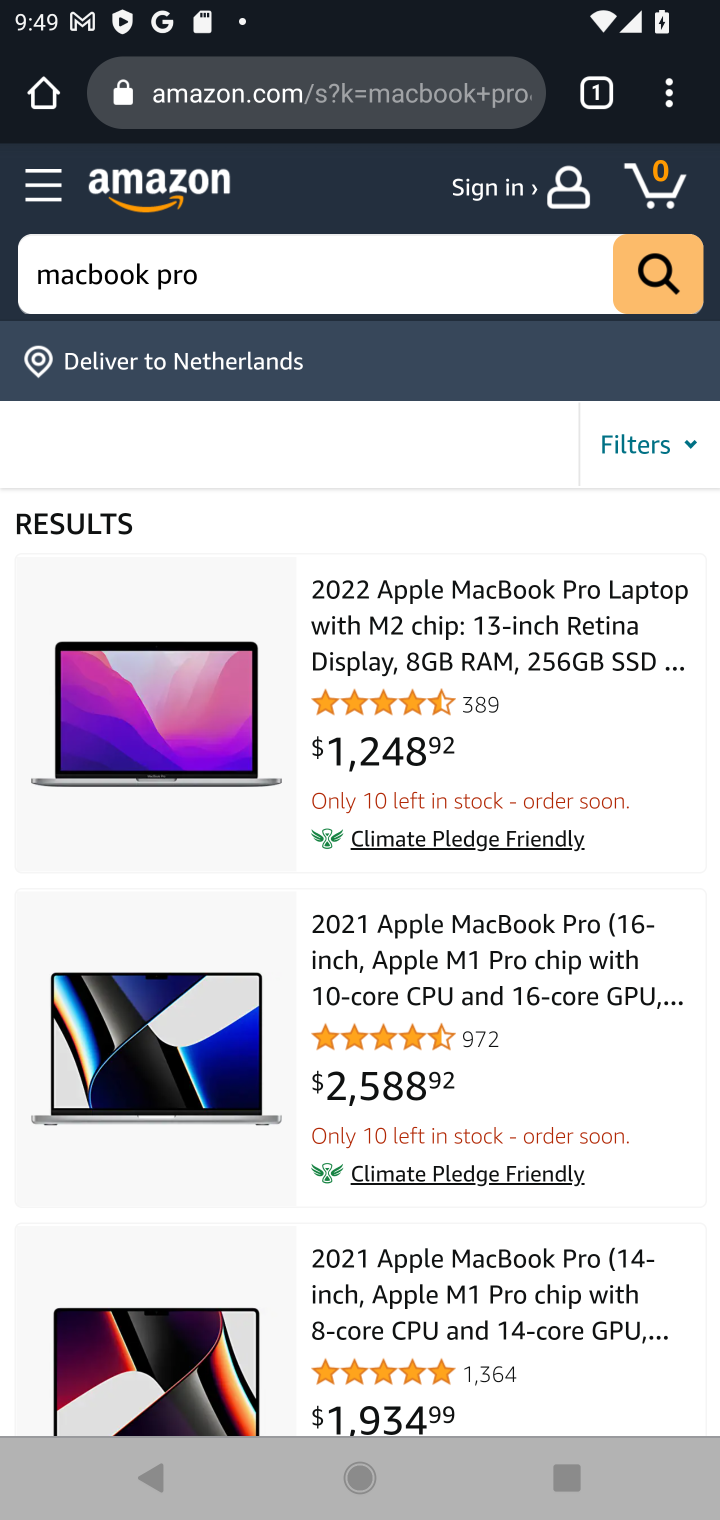
Step 27: click (457, 1325)
Your task to perform on an android device: Add macbook pro to the cart on amazon, then select checkout. Image 28: 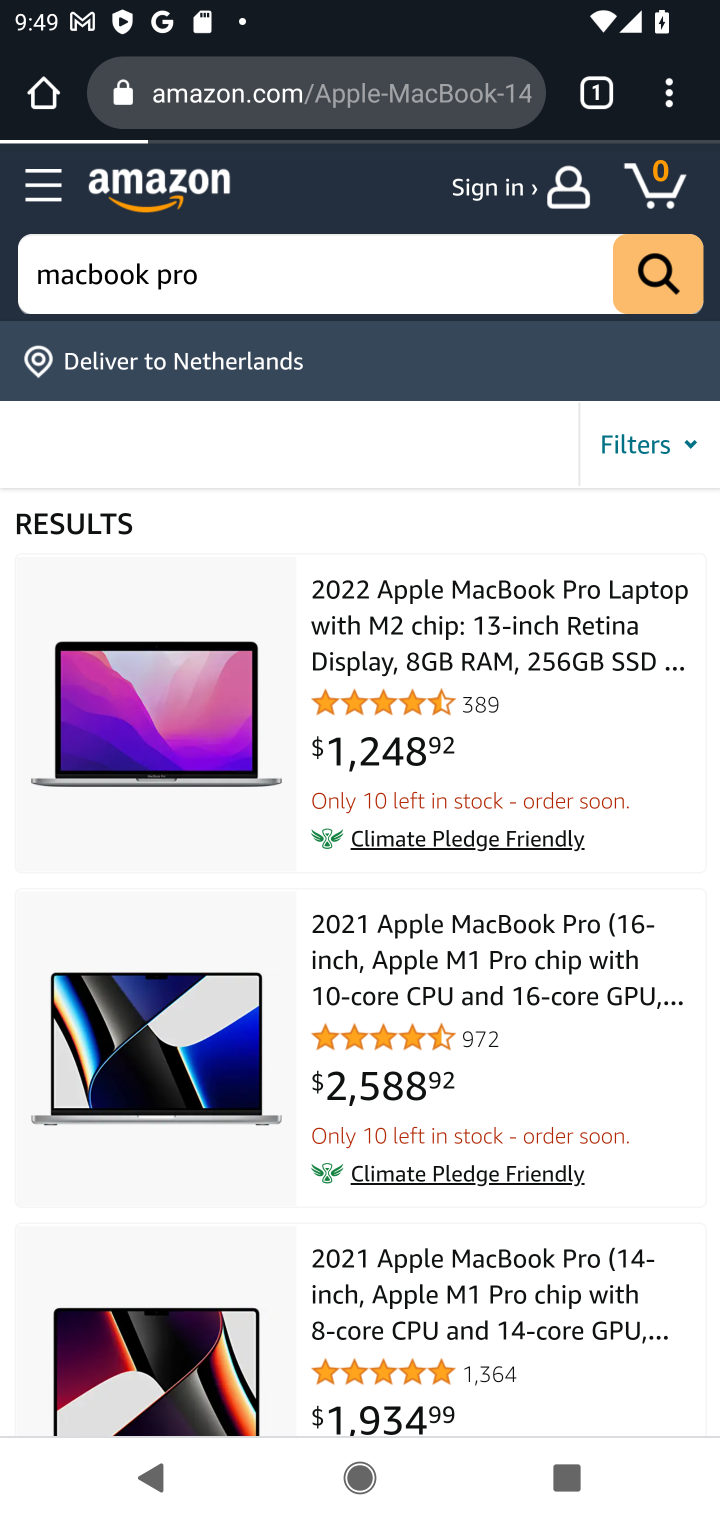
Step 28: task complete